Your task to perform on an android device: open app "Etsy: Buy & Sell Unique Items" Image 0: 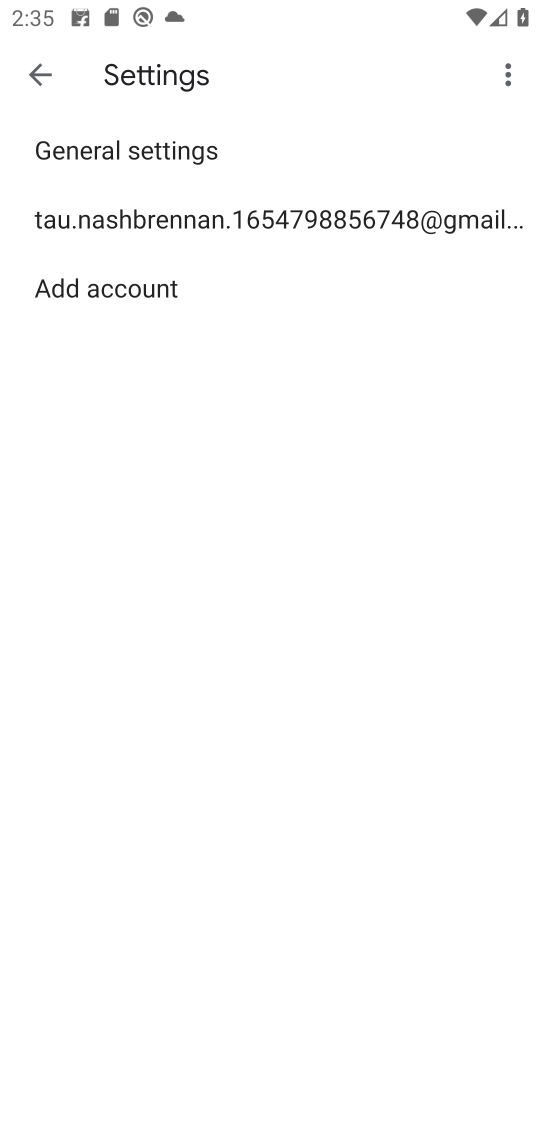
Step 0: press home button
Your task to perform on an android device: open app "Etsy: Buy & Sell Unique Items" Image 1: 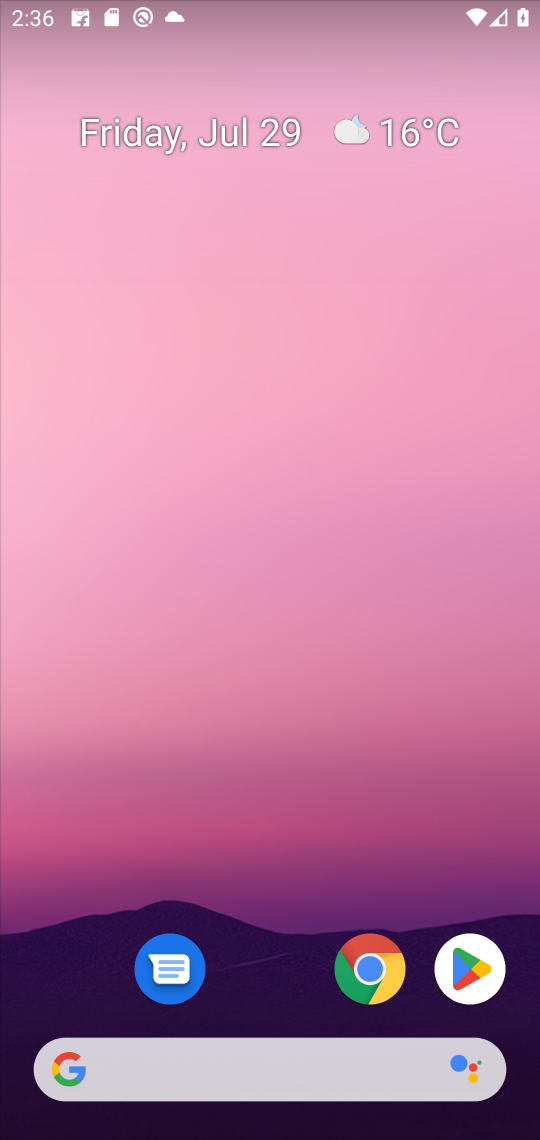
Step 1: click (477, 989)
Your task to perform on an android device: open app "Etsy: Buy & Sell Unique Items" Image 2: 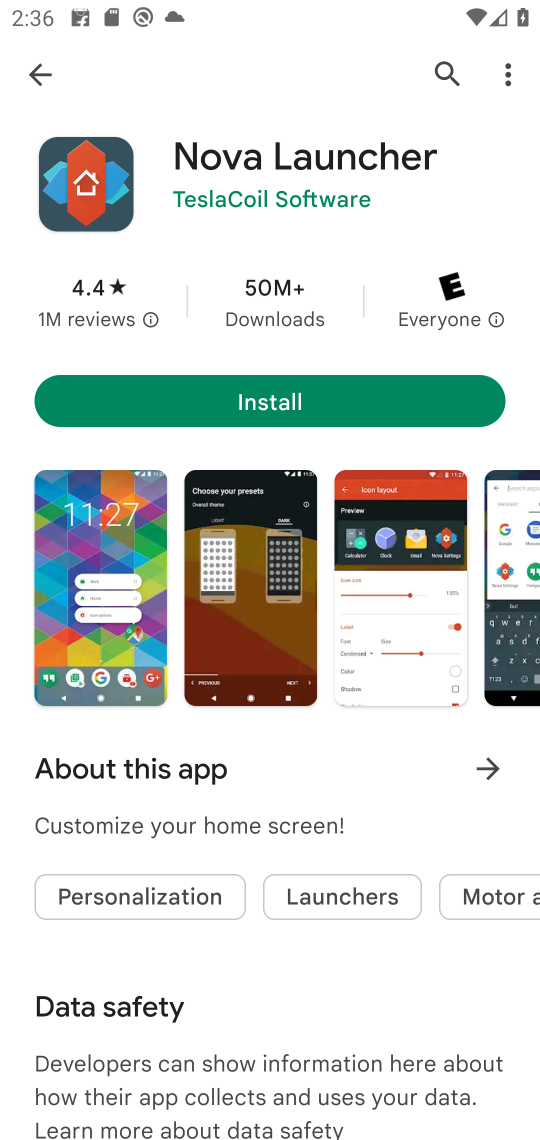
Step 2: click (447, 67)
Your task to perform on an android device: open app "Etsy: Buy & Sell Unique Items" Image 3: 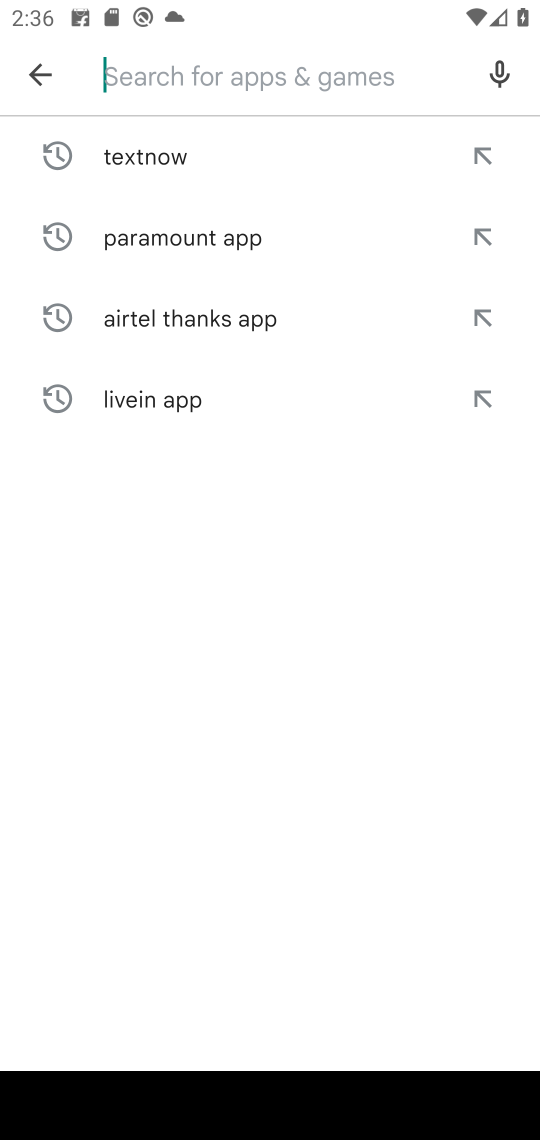
Step 3: type "etsy"
Your task to perform on an android device: open app "Etsy: Buy & Sell Unique Items" Image 4: 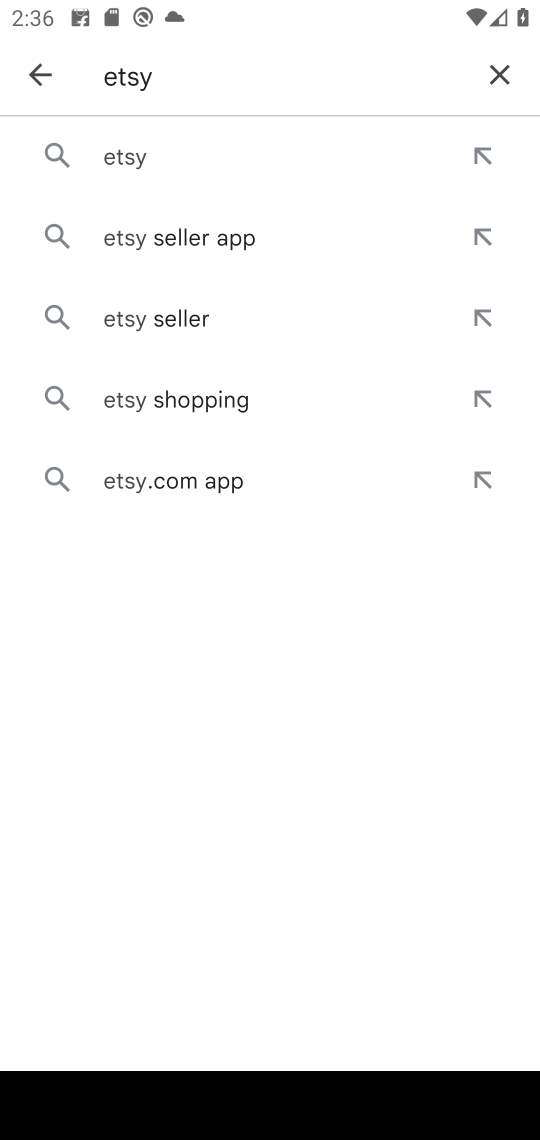
Step 4: click (106, 159)
Your task to perform on an android device: open app "Etsy: Buy & Sell Unique Items" Image 5: 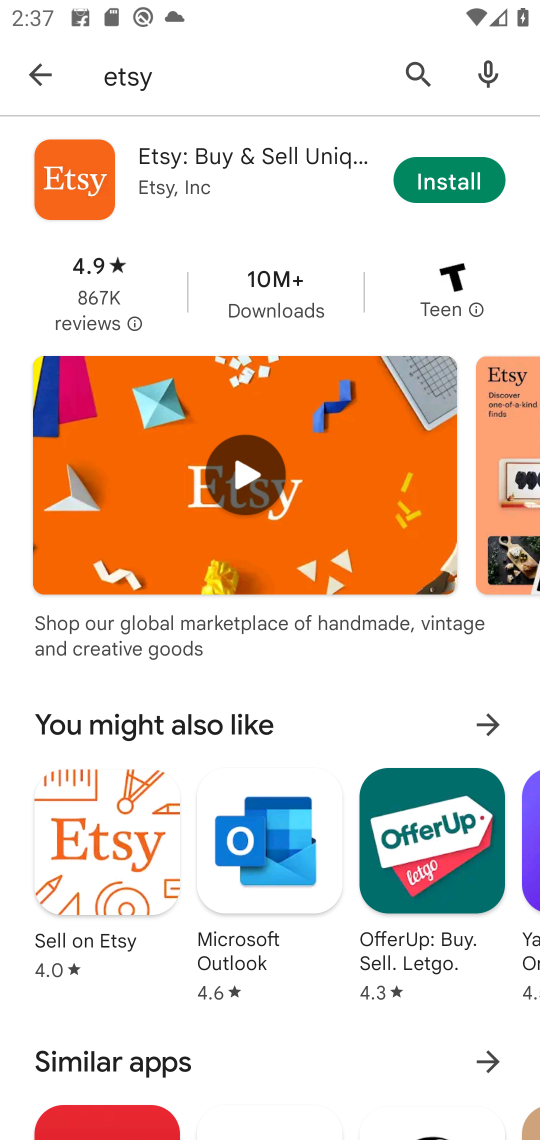
Step 5: task complete